Your task to perform on an android device: change text size in settings app Image 0: 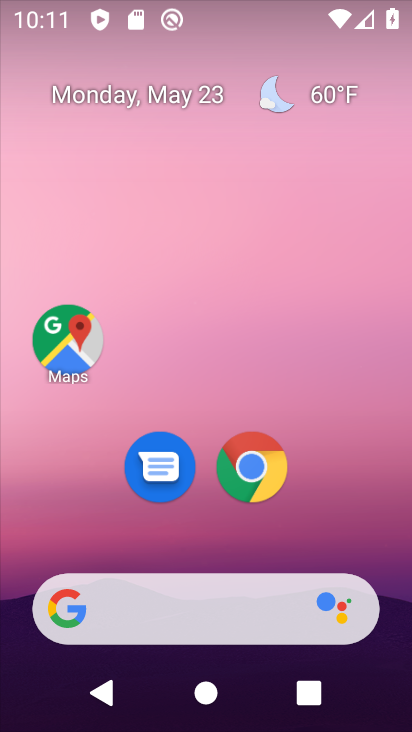
Step 0: drag from (263, 625) to (183, 219)
Your task to perform on an android device: change text size in settings app Image 1: 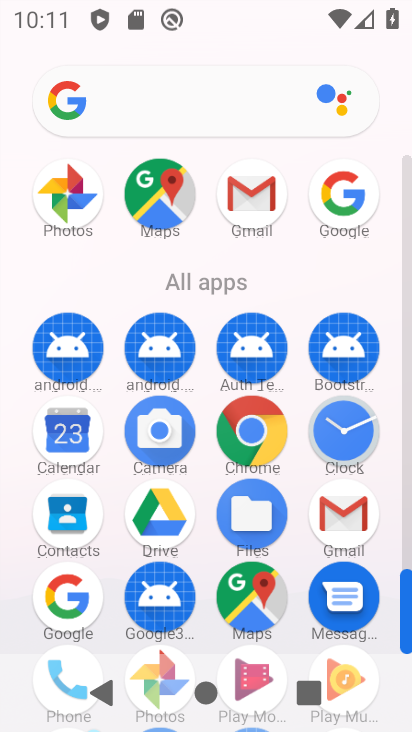
Step 1: drag from (274, 533) to (274, 262)
Your task to perform on an android device: change text size in settings app Image 2: 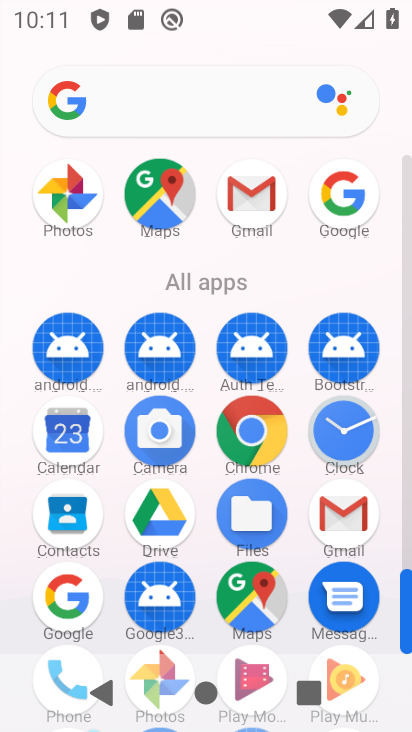
Step 2: drag from (267, 568) to (266, 289)
Your task to perform on an android device: change text size in settings app Image 3: 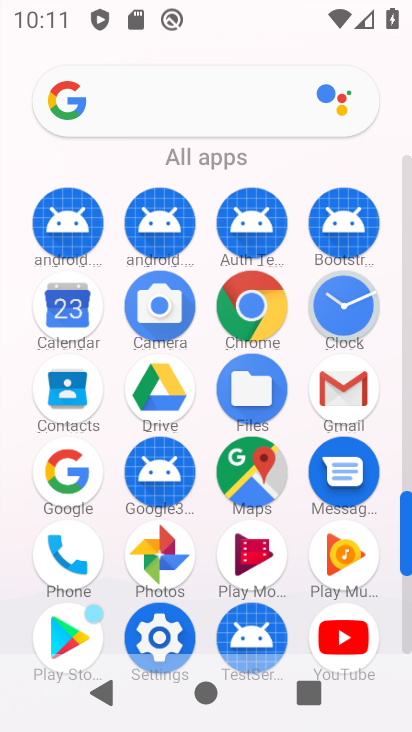
Step 3: drag from (262, 551) to (293, 263)
Your task to perform on an android device: change text size in settings app Image 4: 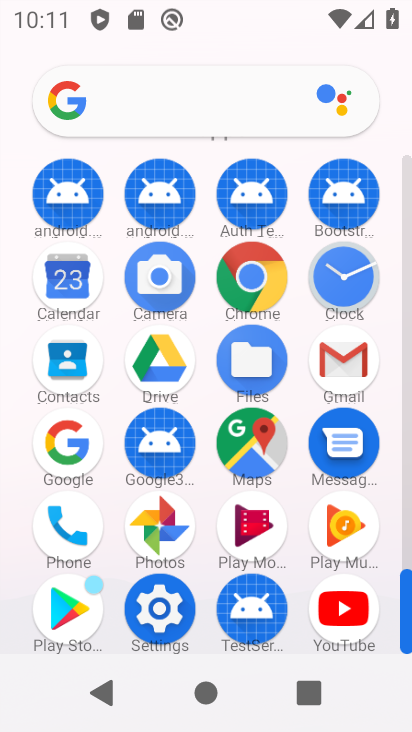
Step 4: click (153, 613)
Your task to perform on an android device: change text size in settings app Image 5: 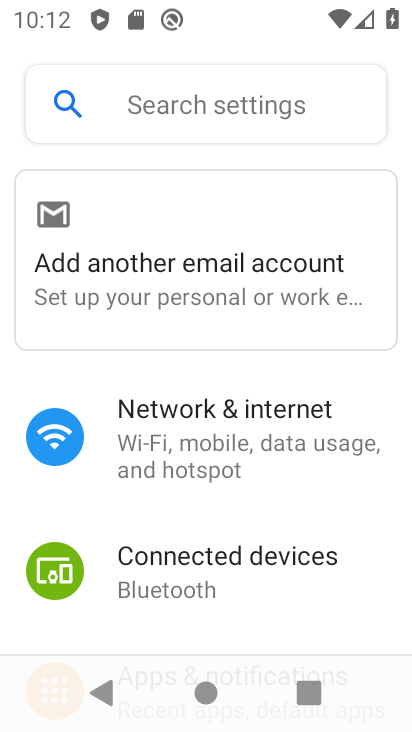
Step 5: drag from (231, 670) to (192, 368)
Your task to perform on an android device: change text size in settings app Image 6: 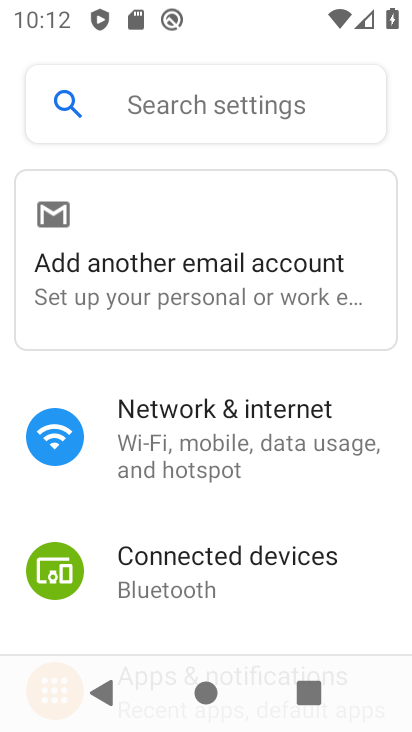
Step 6: drag from (244, 651) to (231, 278)
Your task to perform on an android device: change text size in settings app Image 7: 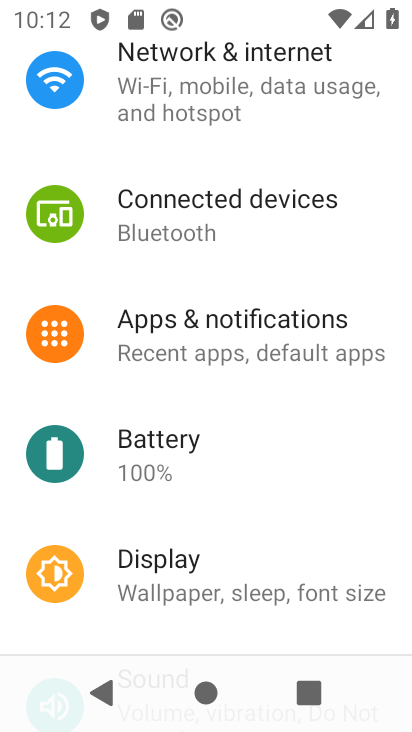
Step 7: drag from (267, 447) to (261, 163)
Your task to perform on an android device: change text size in settings app Image 8: 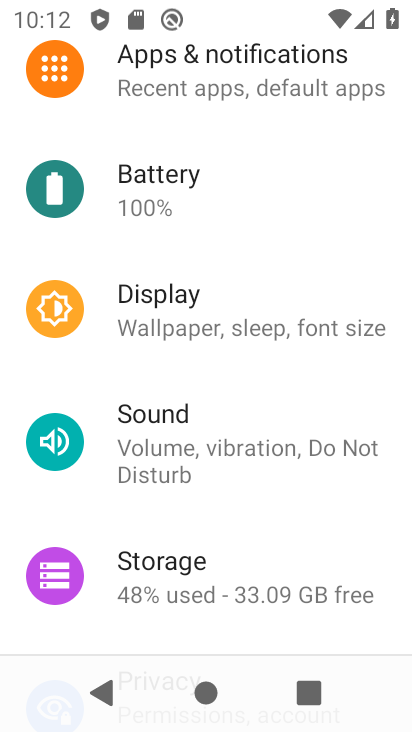
Step 8: drag from (259, 416) to (254, 181)
Your task to perform on an android device: change text size in settings app Image 9: 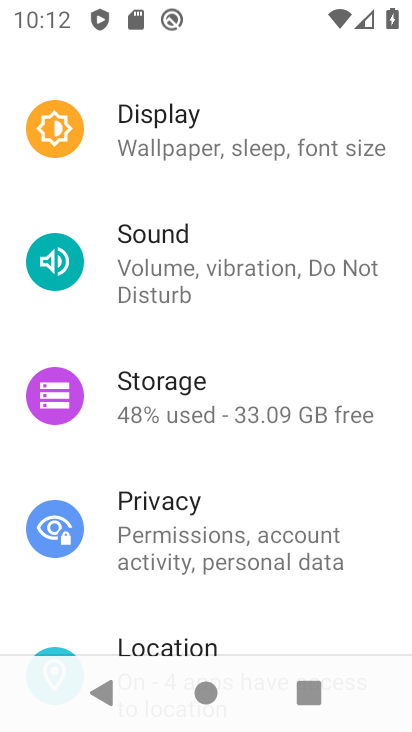
Step 9: click (163, 146)
Your task to perform on an android device: change text size in settings app Image 10: 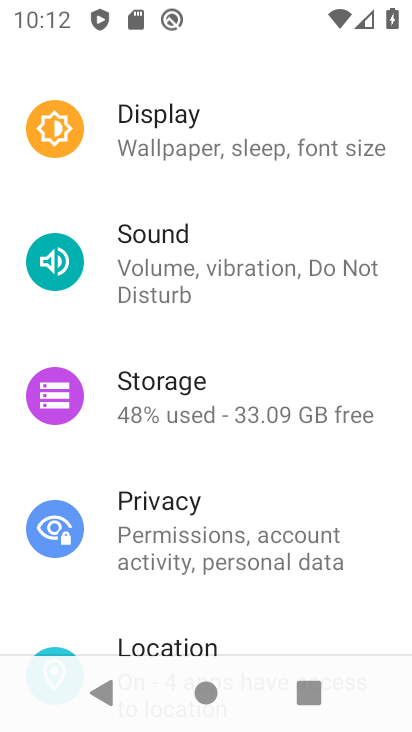
Step 10: click (163, 145)
Your task to perform on an android device: change text size in settings app Image 11: 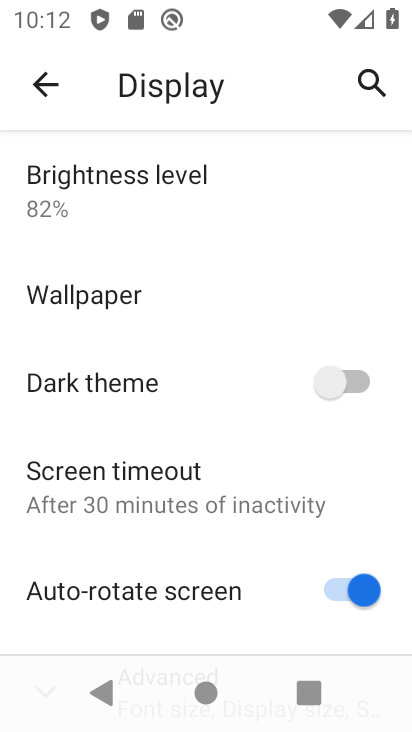
Step 11: drag from (119, 510) to (161, 93)
Your task to perform on an android device: change text size in settings app Image 12: 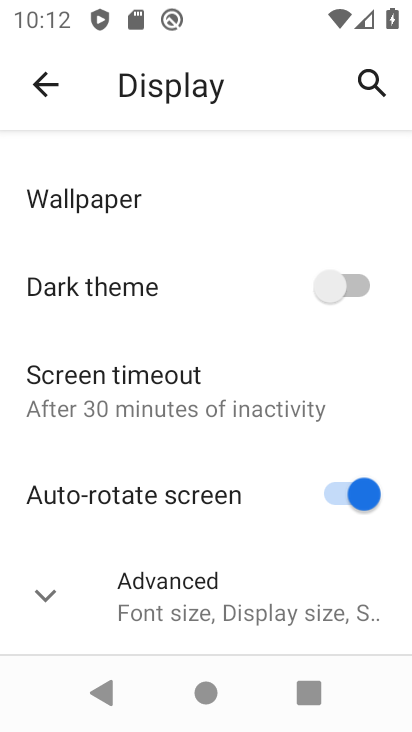
Step 12: click (172, 613)
Your task to perform on an android device: change text size in settings app Image 13: 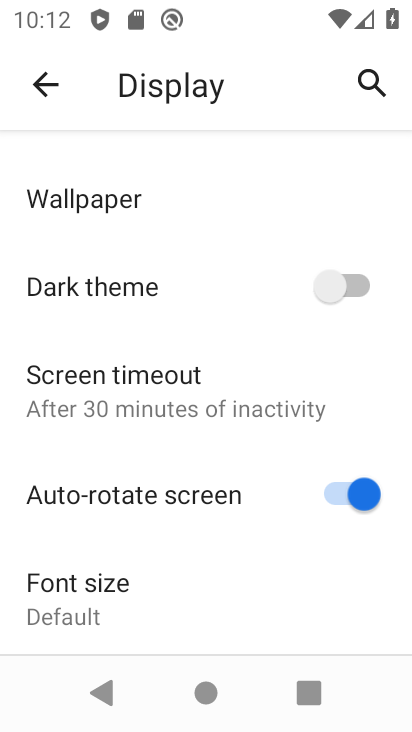
Step 13: click (64, 611)
Your task to perform on an android device: change text size in settings app Image 14: 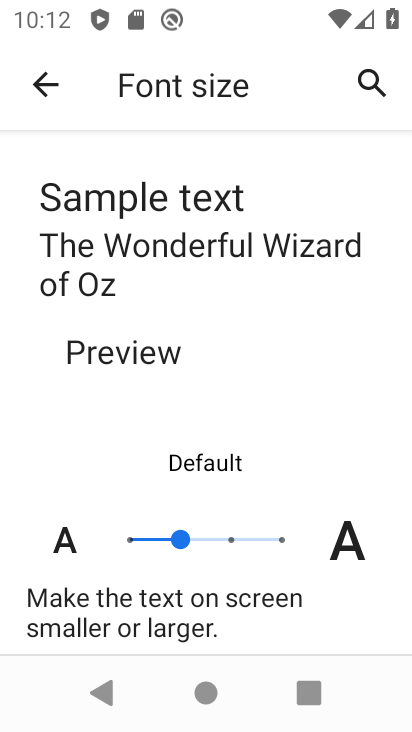
Step 14: click (226, 546)
Your task to perform on an android device: change text size in settings app Image 15: 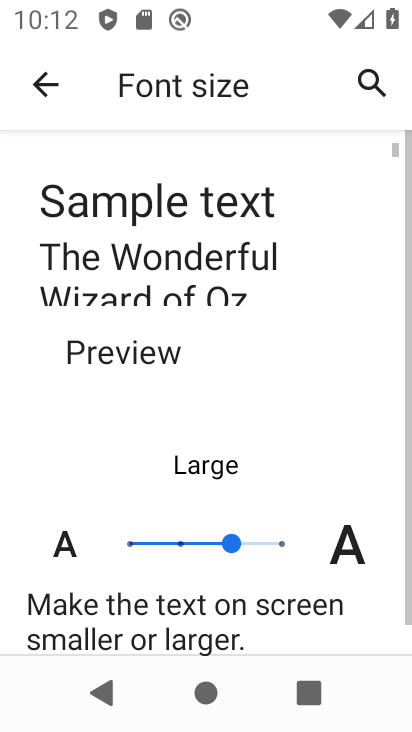
Step 15: task complete